Your task to perform on an android device: turn notification dots on Image 0: 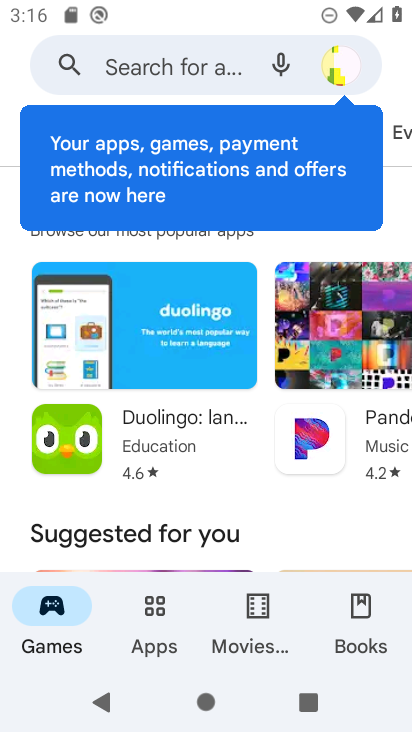
Step 0: press home button
Your task to perform on an android device: turn notification dots on Image 1: 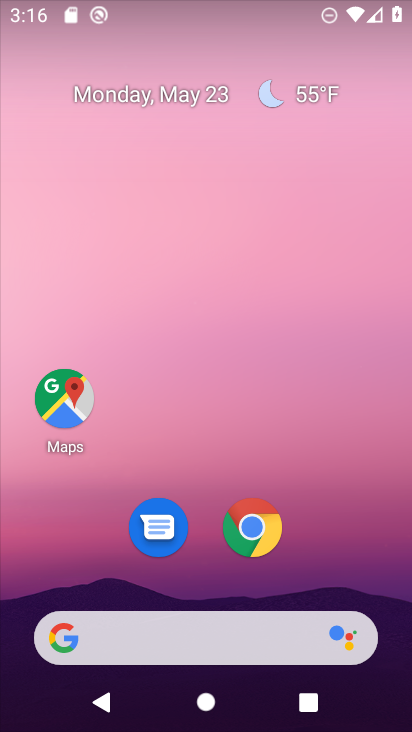
Step 1: drag from (208, 581) to (223, 180)
Your task to perform on an android device: turn notification dots on Image 2: 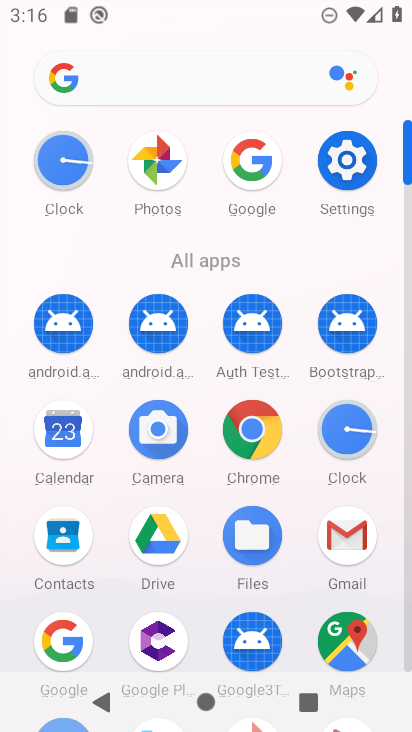
Step 2: click (346, 153)
Your task to perform on an android device: turn notification dots on Image 3: 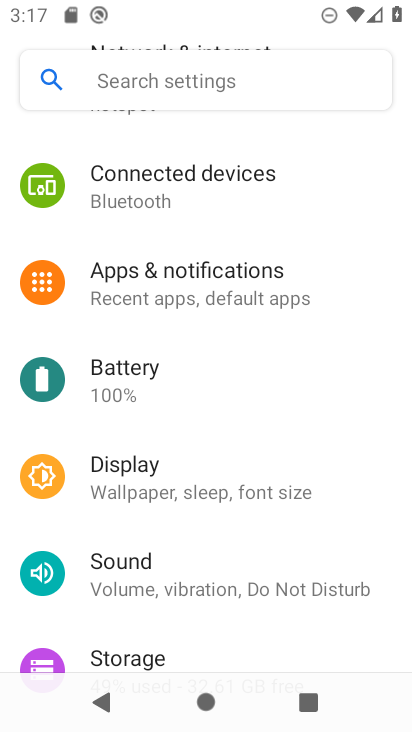
Step 3: click (210, 284)
Your task to perform on an android device: turn notification dots on Image 4: 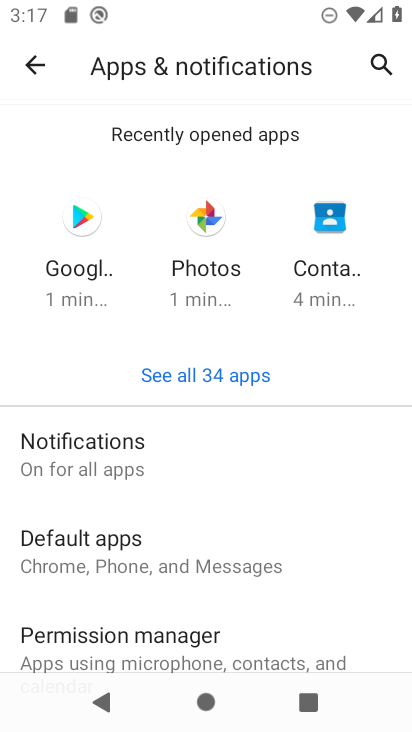
Step 4: click (167, 441)
Your task to perform on an android device: turn notification dots on Image 5: 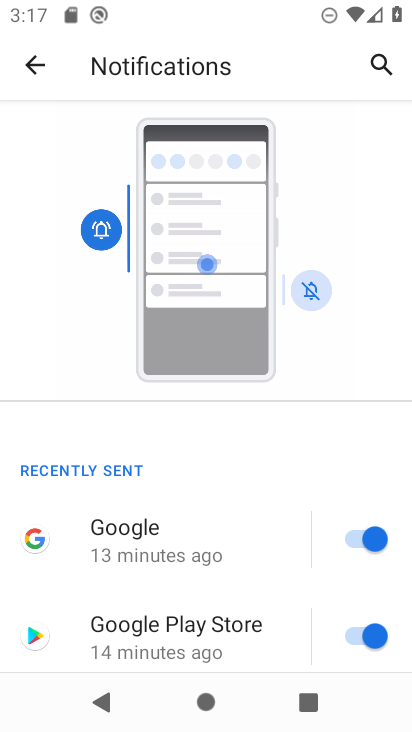
Step 5: drag from (228, 642) to (268, 194)
Your task to perform on an android device: turn notification dots on Image 6: 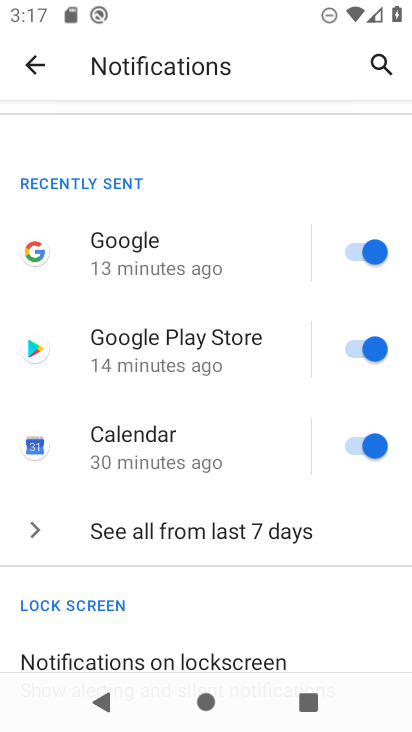
Step 6: drag from (190, 595) to (237, 77)
Your task to perform on an android device: turn notification dots on Image 7: 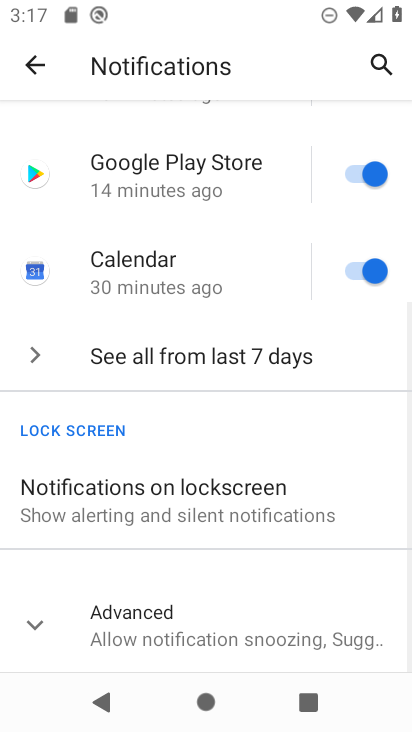
Step 7: drag from (207, 354) to (220, 146)
Your task to perform on an android device: turn notification dots on Image 8: 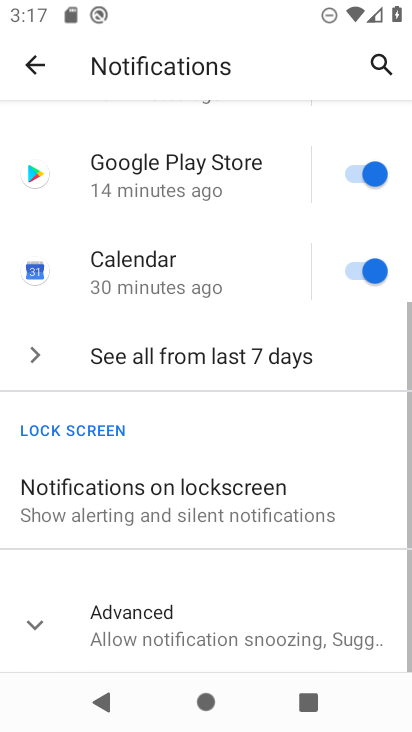
Step 8: click (170, 618)
Your task to perform on an android device: turn notification dots on Image 9: 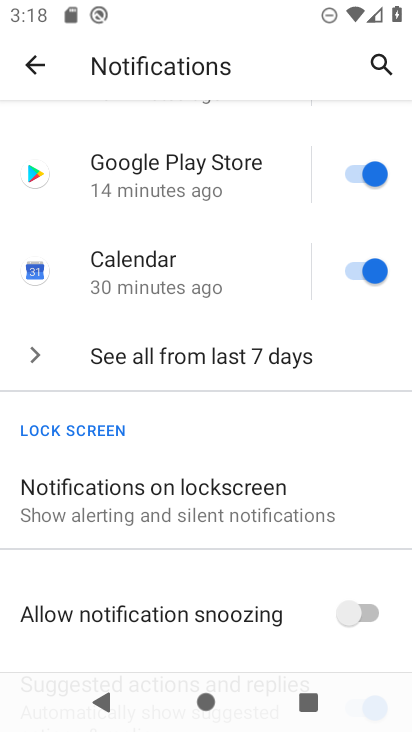
Step 9: task complete